Your task to perform on an android device: set default search engine in the chrome app Image 0: 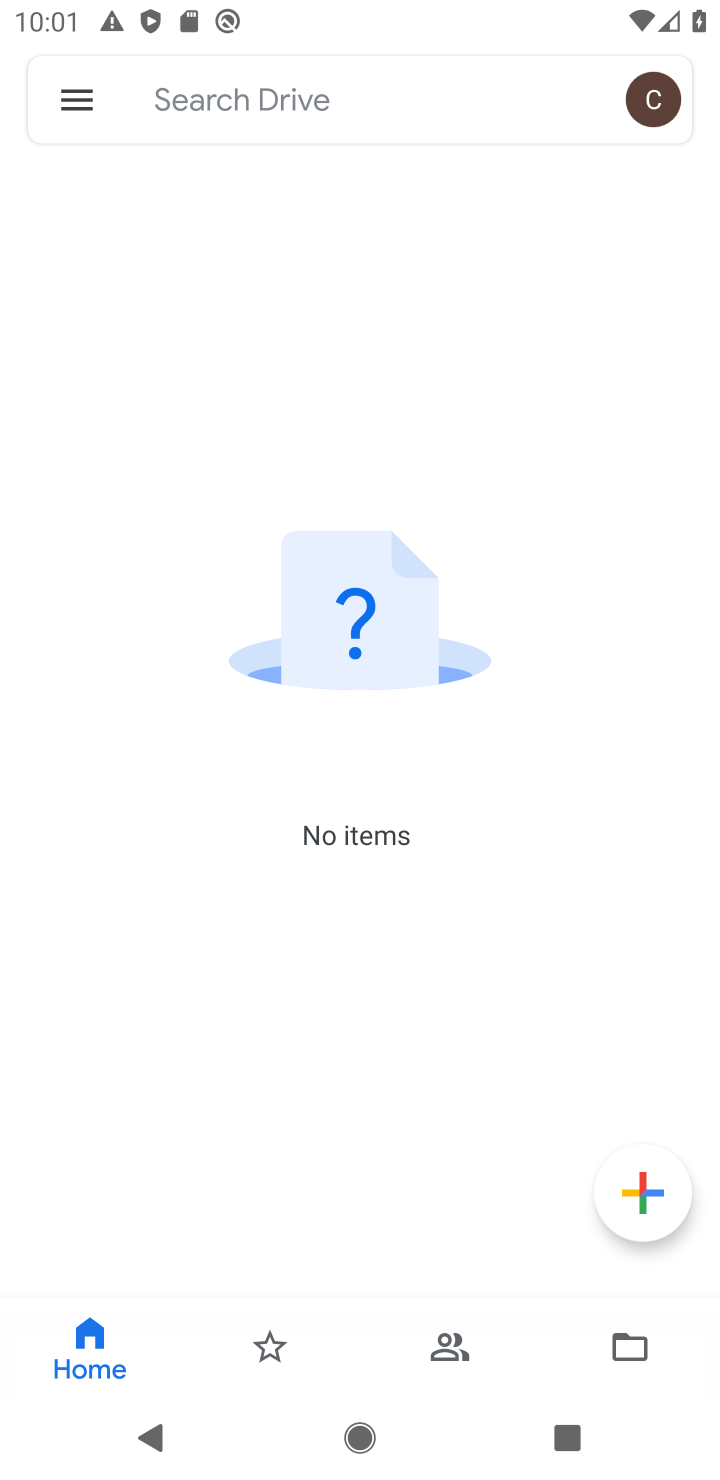
Step 0: press home button
Your task to perform on an android device: set default search engine in the chrome app Image 1: 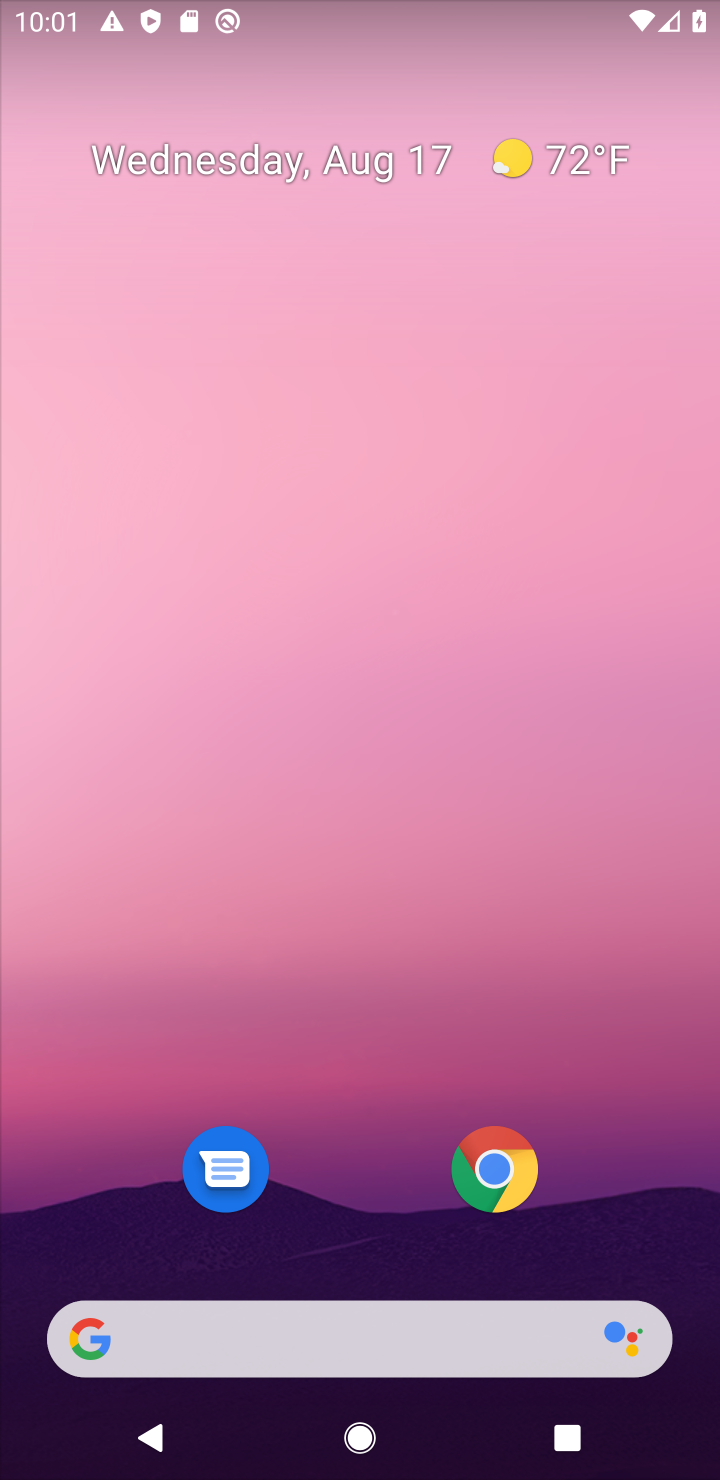
Step 1: drag from (365, 1122) to (431, 20)
Your task to perform on an android device: set default search engine in the chrome app Image 2: 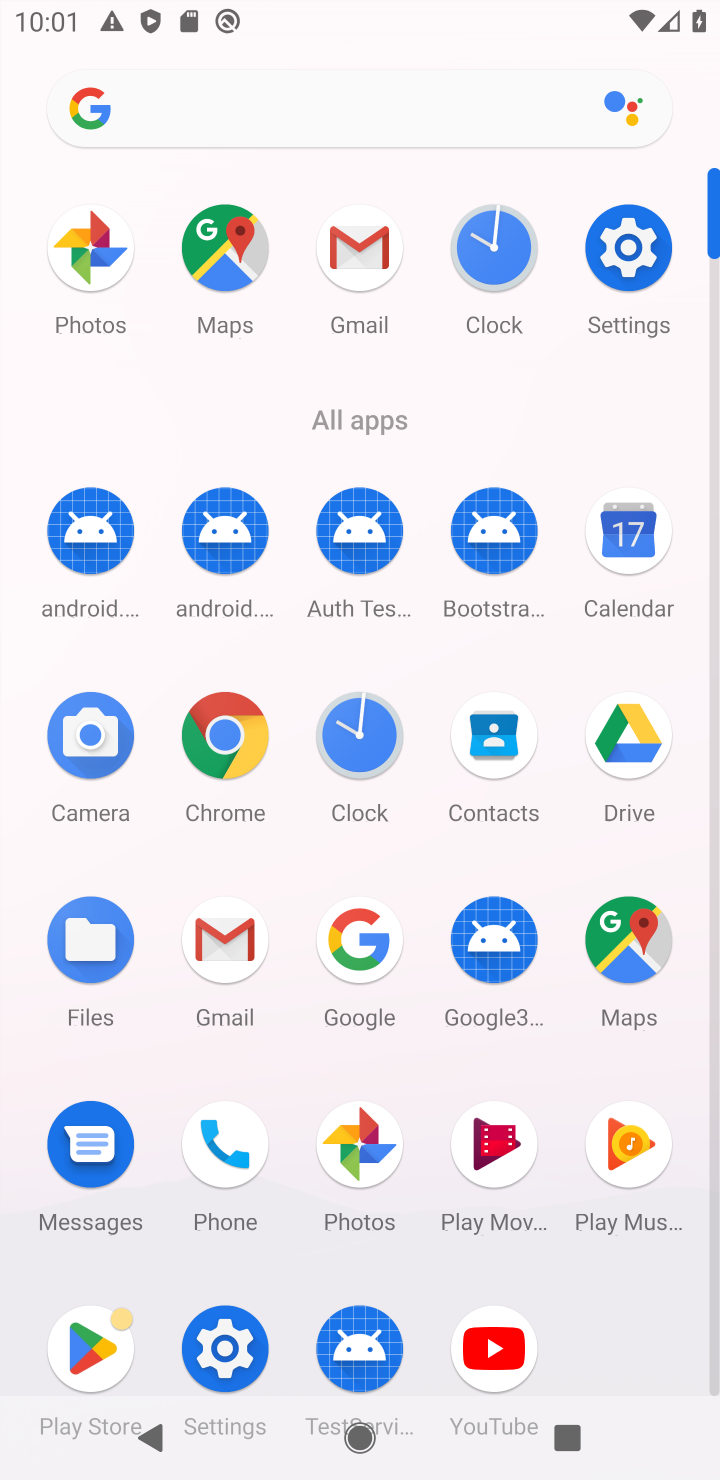
Step 2: click (229, 745)
Your task to perform on an android device: set default search engine in the chrome app Image 3: 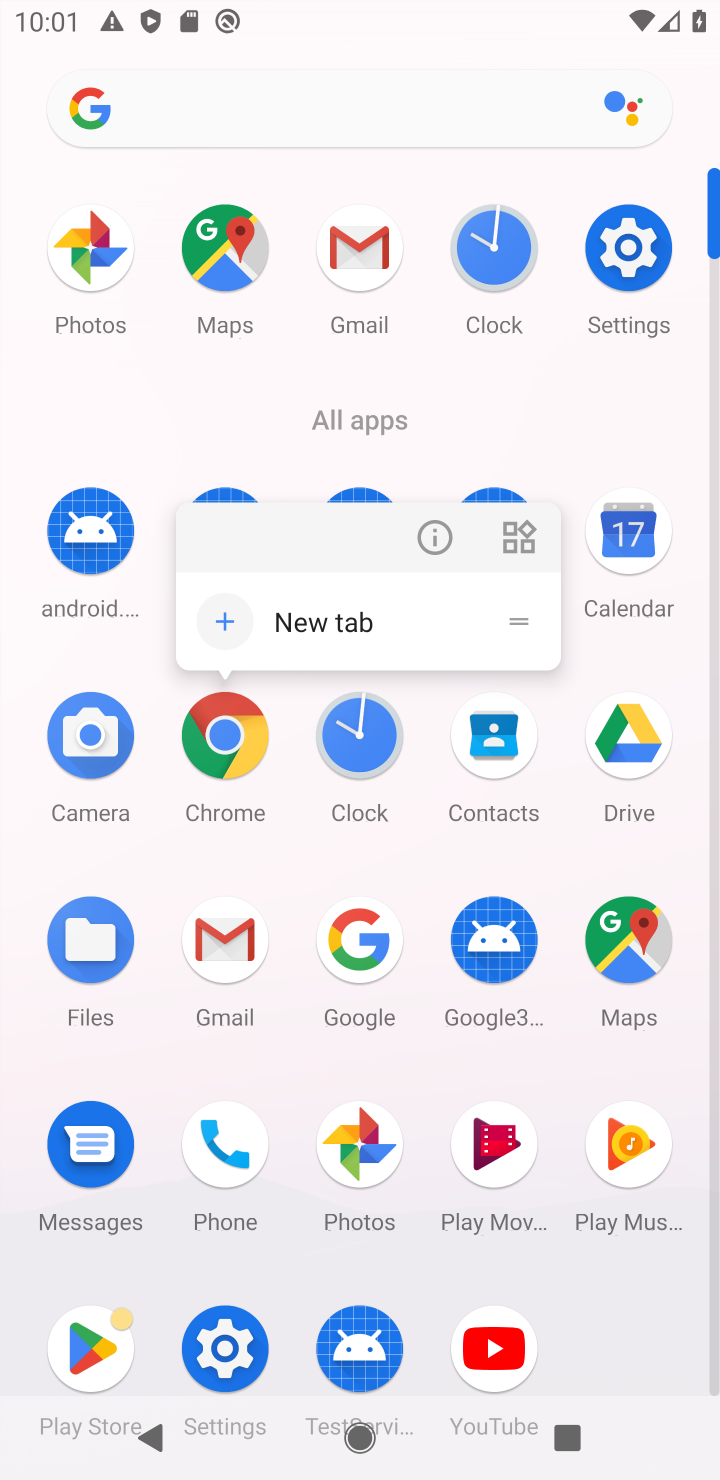
Step 3: task complete